Your task to perform on an android device: When is my next meeting? Image 0: 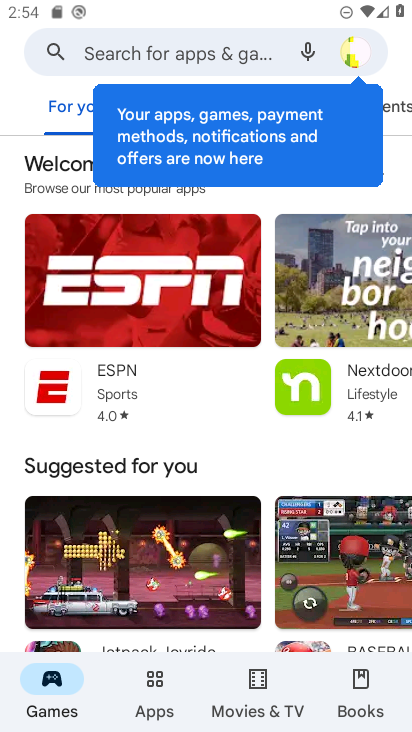
Step 0: press back button
Your task to perform on an android device: When is my next meeting? Image 1: 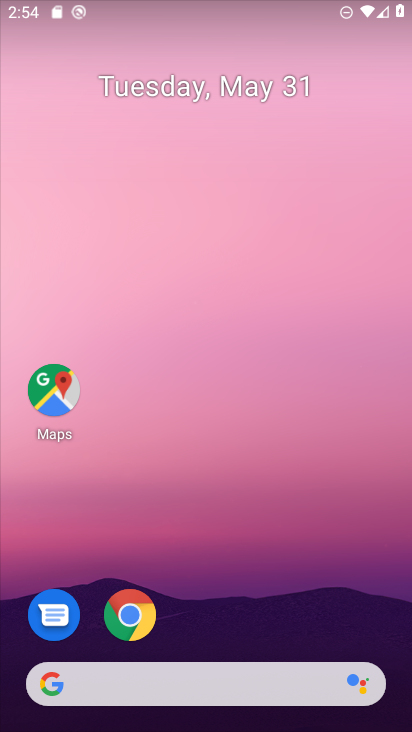
Step 1: drag from (265, 642) to (170, 48)
Your task to perform on an android device: When is my next meeting? Image 2: 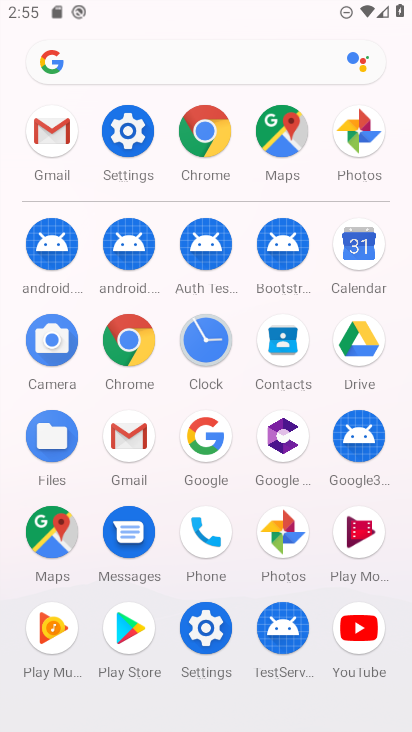
Step 2: click (356, 249)
Your task to perform on an android device: When is my next meeting? Image 3: 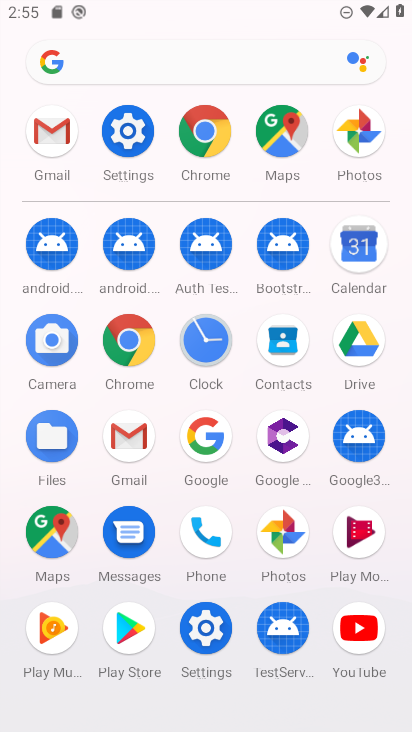
Step 3: click (356, 248)
Your task to perform on an android device: When is my next meeting? Image 4: 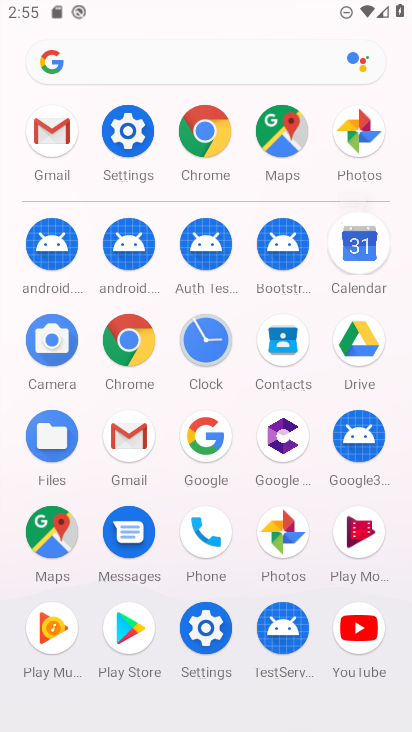
Step 4: click (356, 252)
Your task to perform on an android device: When is my next meeting? Image 5: 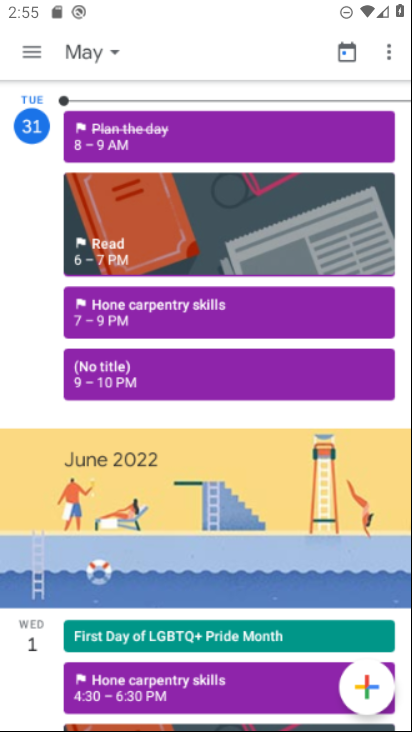
Step 5: click (356, 252)
Your task to perform on an android device: When is my next meeting? Image 6: 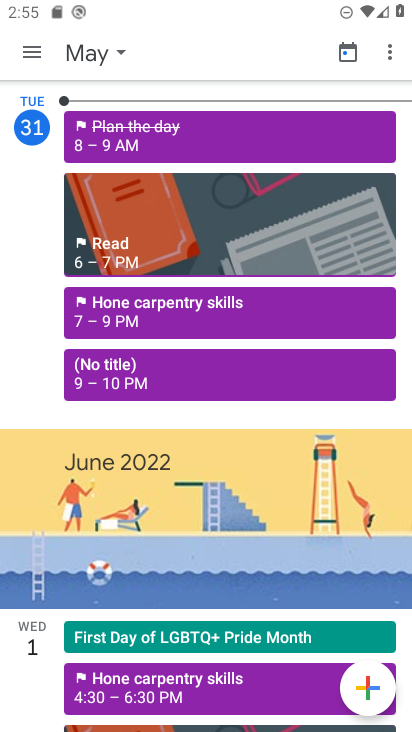
Step 6: click (117, 55)
Your task to perform on an android device: When is my next meeting? Image 7: 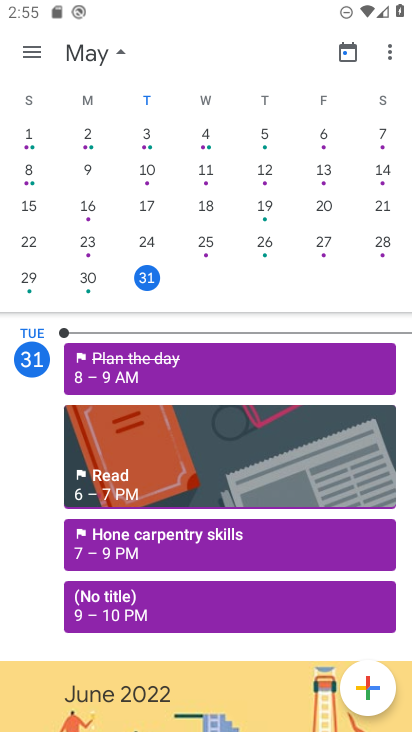
Step 7: drag from (156, 522) to (139, 132)
Your task to perform on an android device: When is my next meeting? Image 8: 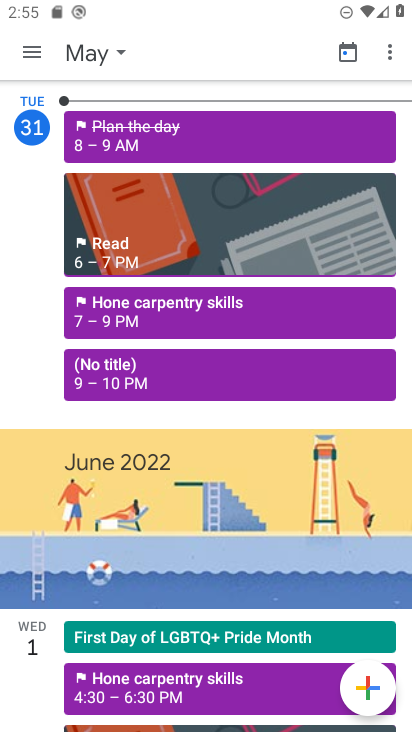
Step 8: drag from (173, 493) to (151, 188)
Your task to perform on an android device: When is my next meeting? Image 9: 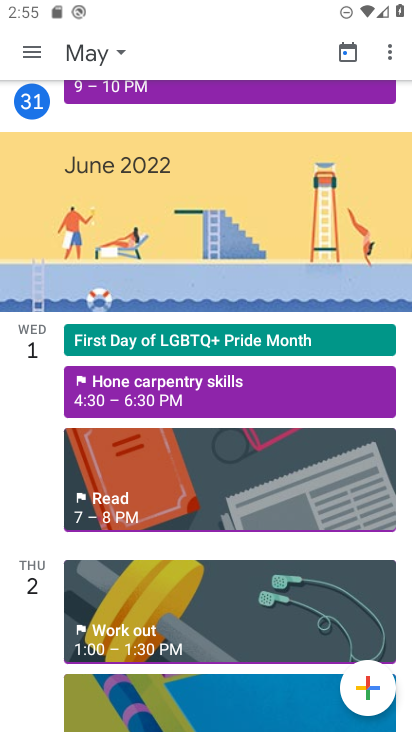
Step 9: click (185, 145)
Your task to perform on an android device: When is my next meeting? Image 10: 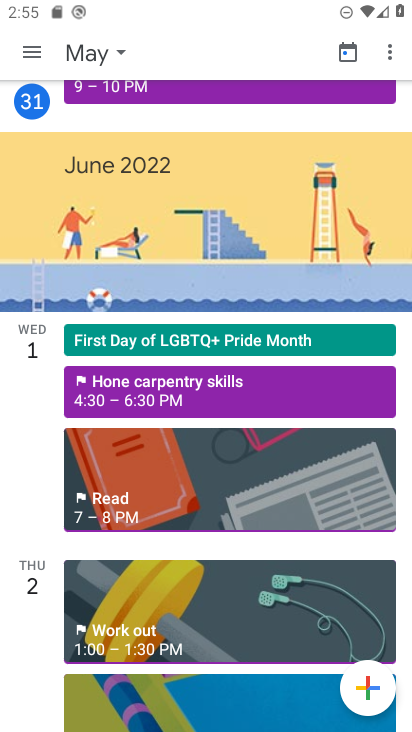
Step 10: task complete